Your task to perform on an android device: See recent photos Image 0: 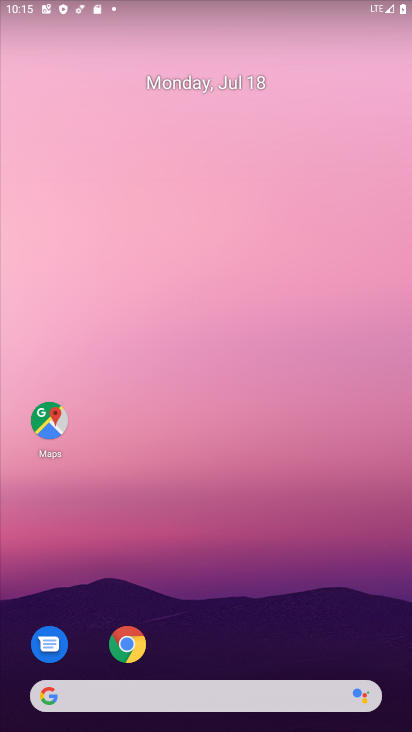
Step 0: drag from (340, 611) to (347, 184)
Your task to perform on an android device: See recent photos Image 1: 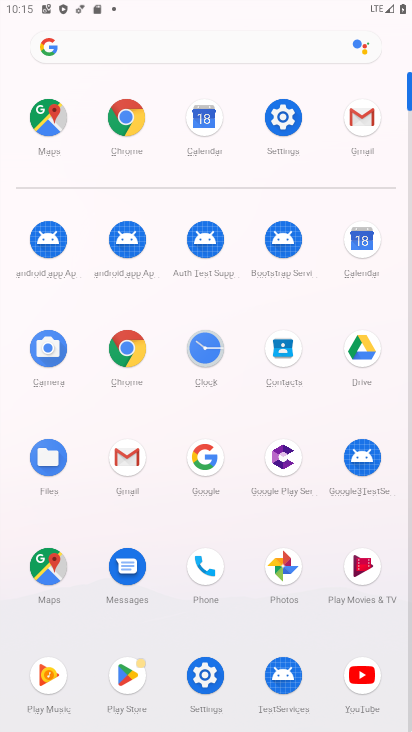
Step 1: click (271, 573)
Your task to perform on an android device: See recent photos Image 2: 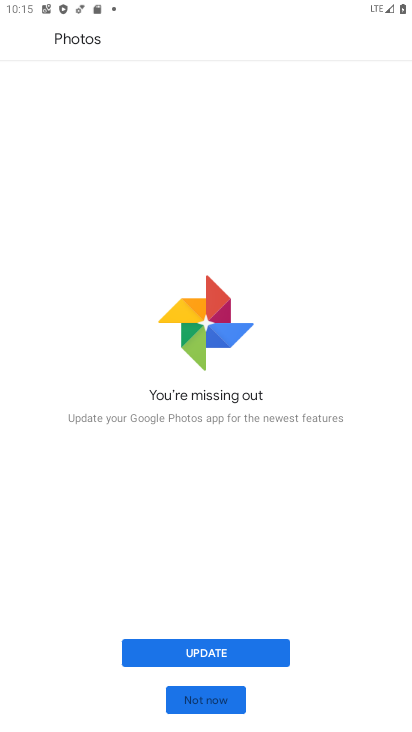
Step 2: click (220, 650)
Your task to perform on an android device: See recent photos Image 3: 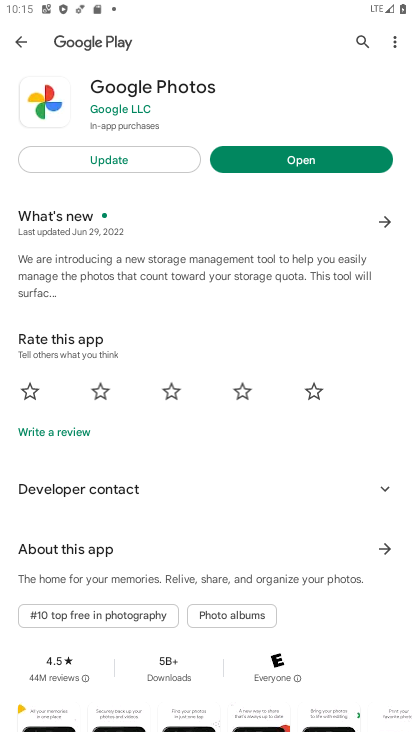
Step 3: click (147, 162)
Your task to perform on an android device: See recent photos Image 4: 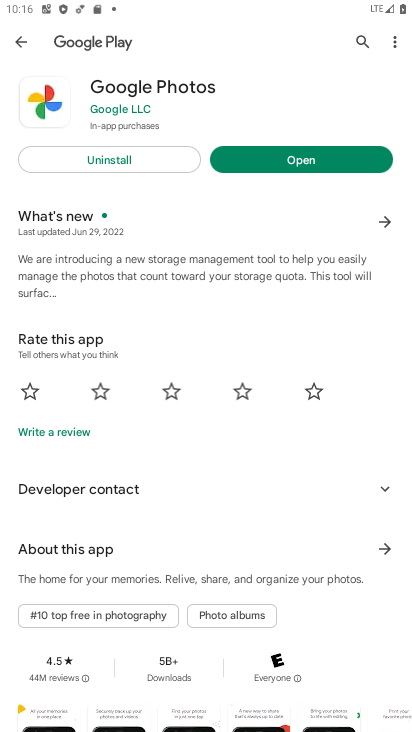
Step 4: click (304, 163)
Your task to perform on an android device: See recent photos Image 5: 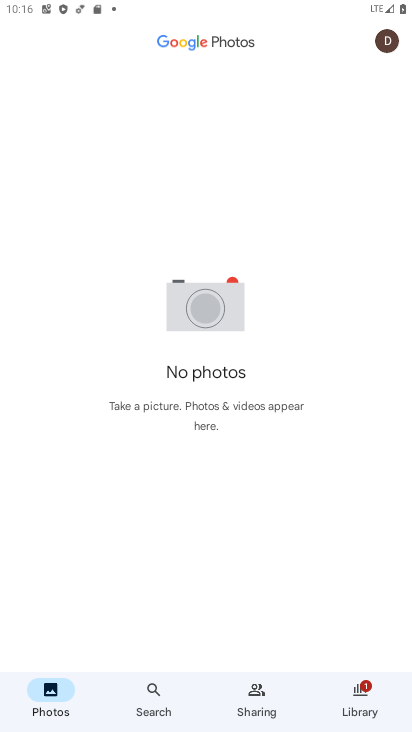
Step 5: task complete